Your task to perform on an android device: toggle notifications settings in the gmail app Image 0: 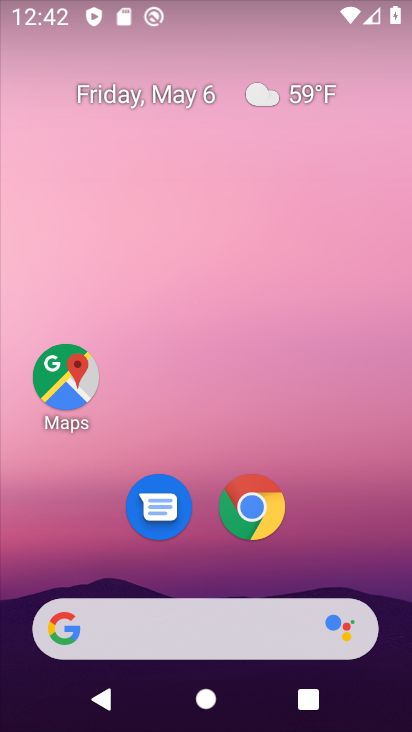
Step 0: drag from (139, 595) to (264, 73)
Your task to perform on an android device: toggle notifications settings in the gmail app Image 1: 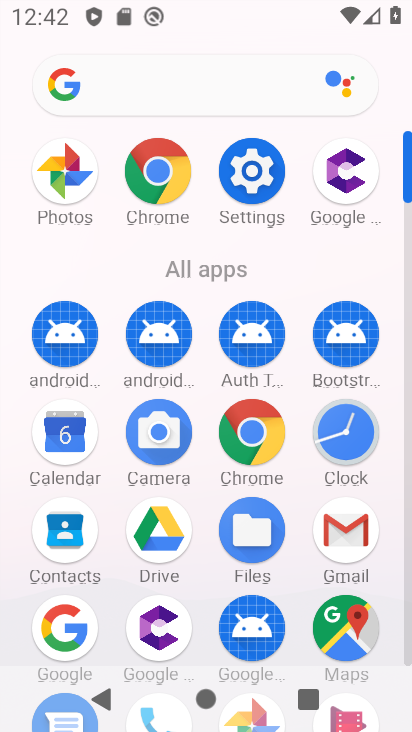
Step 1: click (362, 536)
Your task to perform on an android device: toggle notifications settings in the gmail app Image 2: 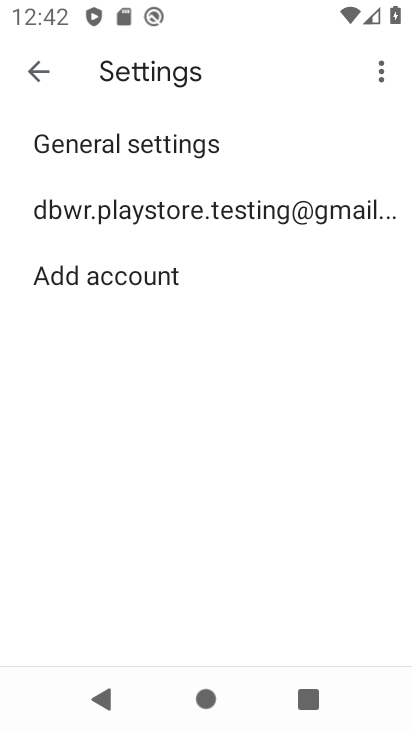
Step 2: click (199, 210)
Your task to perform on an android device: toggle notifications settings in the gmail app Image 3: 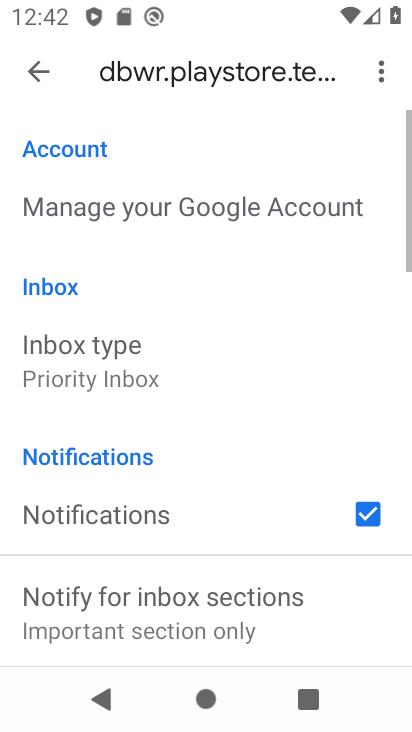
Step 3: drag from (152, 650) to (272, 170)
Your task to perform on an android device: toggle notifications settings in the gmail app Image 4: 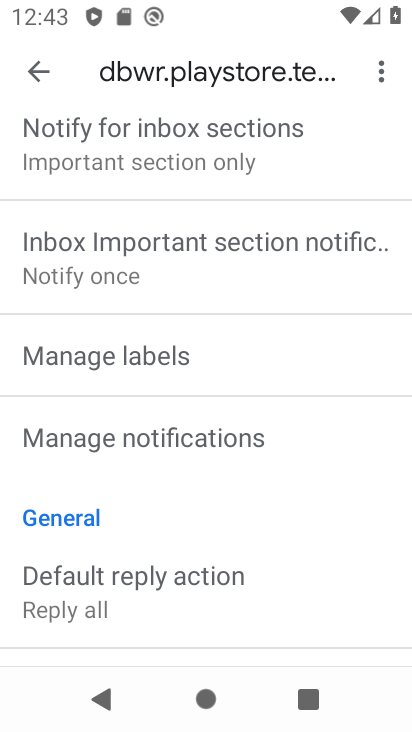
Step 4: click (206, 443)
Your task to perform on an android device: toggle notifications settings in the gmail app Image 5: 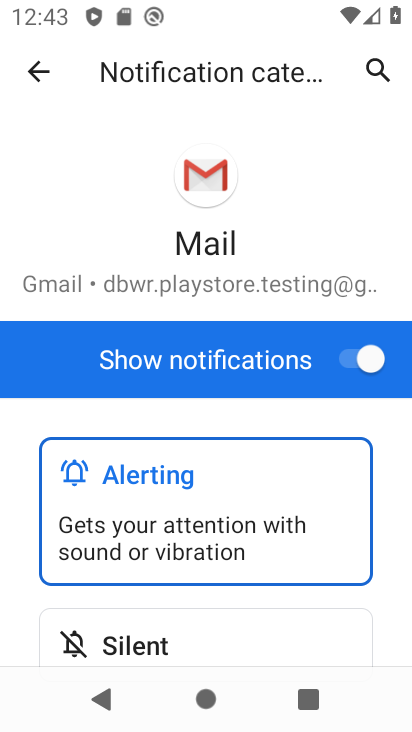
Step 5: click (348, 353)
Your task to perform on an android device: toggle notifications settings in the gmail app Image 6: 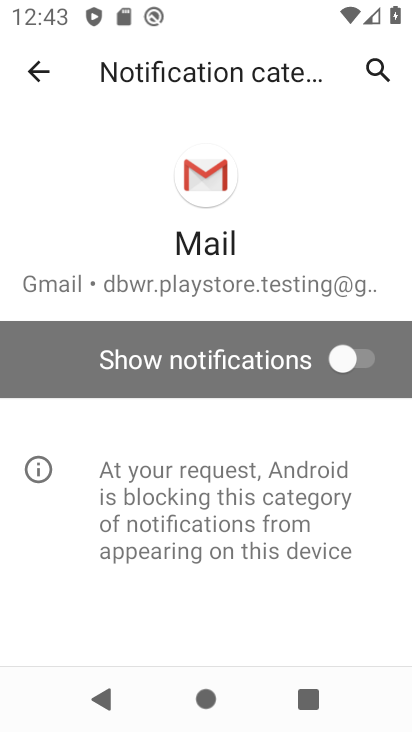
Step 6: task complete